Your task to perform on an android device: check data usage Image 0: 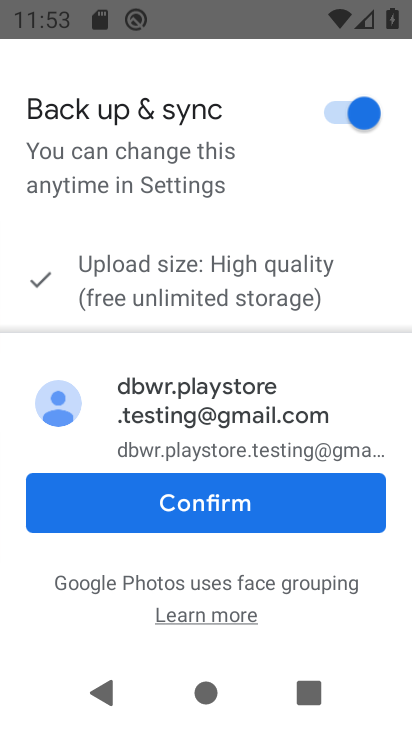
Step 0: press home button
Your task to perform on an android device: check data usage Image 1: 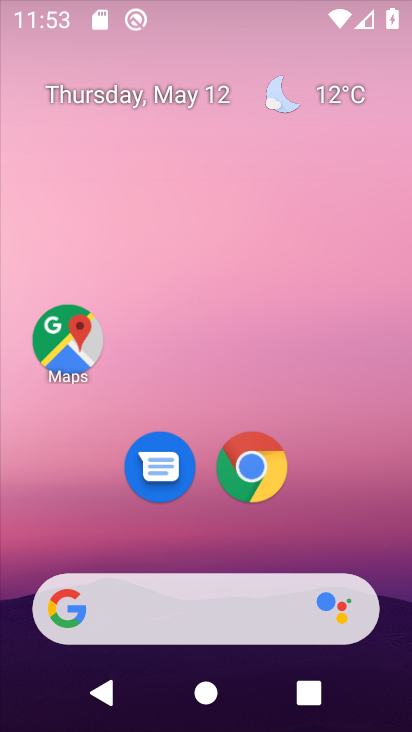
Step 1: drag from (293, 536) to (247, 99)
Your task to perform on an android device: check data usage Image 2: 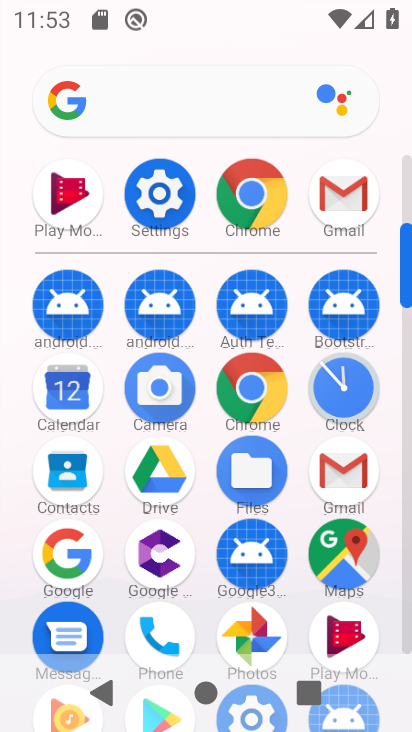
Step 2: click (171, 208)
Your task to perform on an android device: check data usage Image 3: 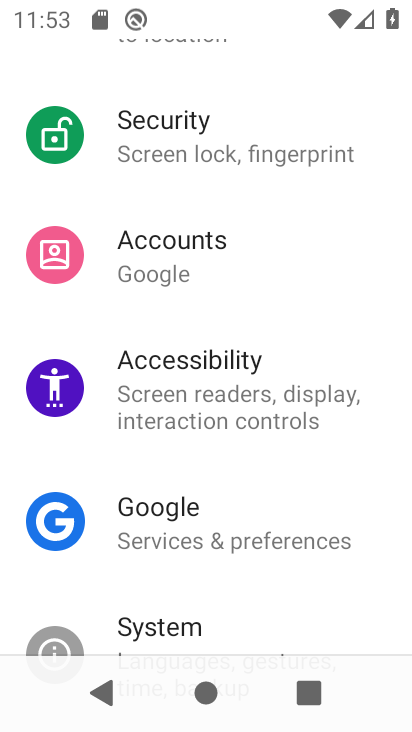
Step 3: drag from (252, 198) to (236, 684)
Your task to perform on an android device: check data usage Image 4: 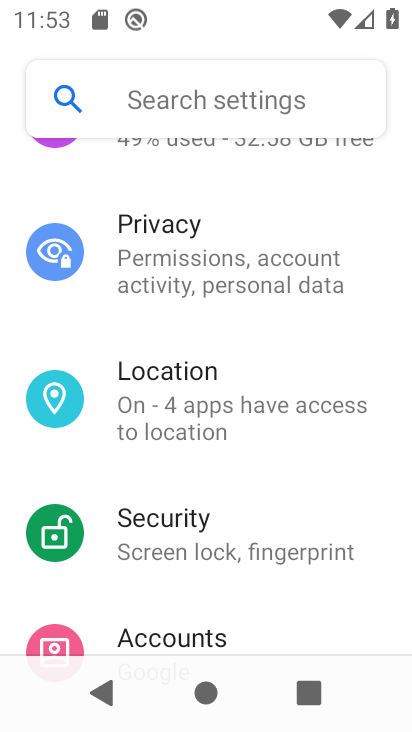
Step 4: drag from (243, 196) to (208, 629)
Your task to perform on an android device: check data usage Image 5: 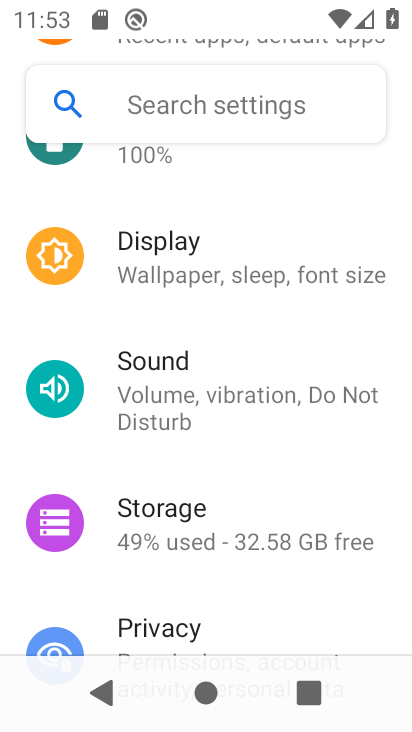
Step 5: drag from (255, 228) to (228, 638)
Your task to perform on an android device: check data usage Image 6: 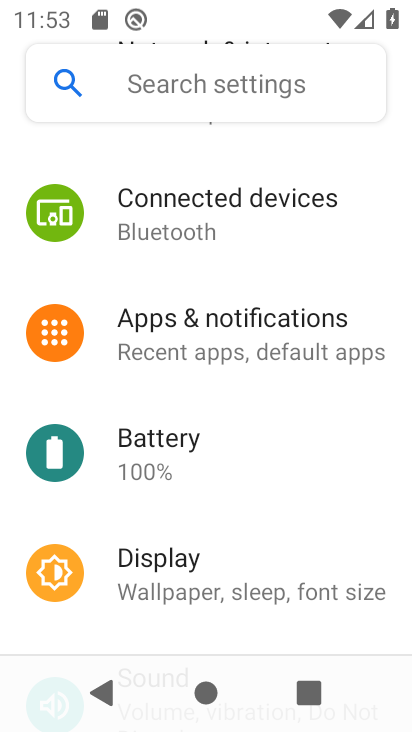
Step 6: drag from (248, 266) to (225, 651)
Your task to perform on an android device: check data usage Image 7: 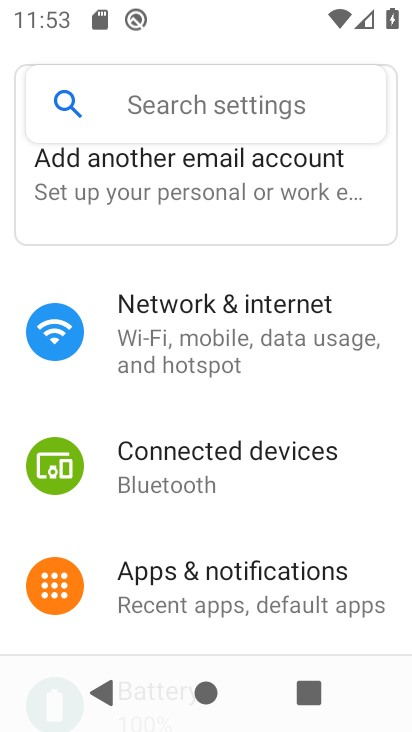
Step 7: click (213, 322)
Your task to perform on an android device: check data usage Image 8: 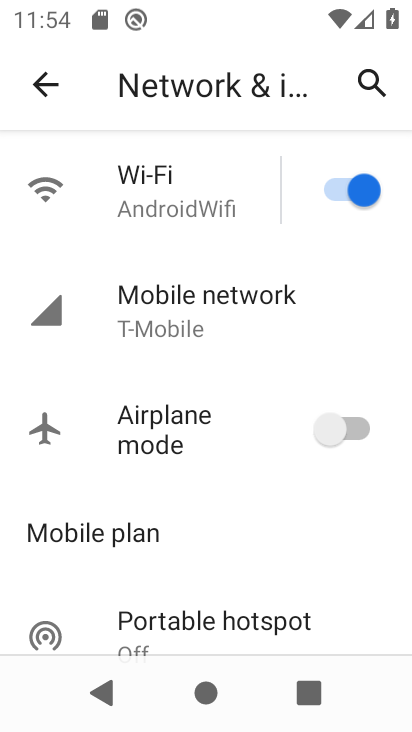
Step 8: click (206, 325)
Your task to perform on an android device: check data usage Image 9: 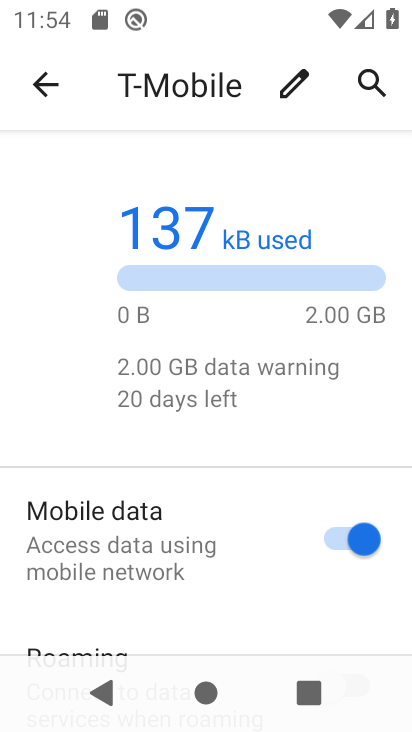
Step 9: task complete